Your task to perform on an android device: check data usage Image 0: 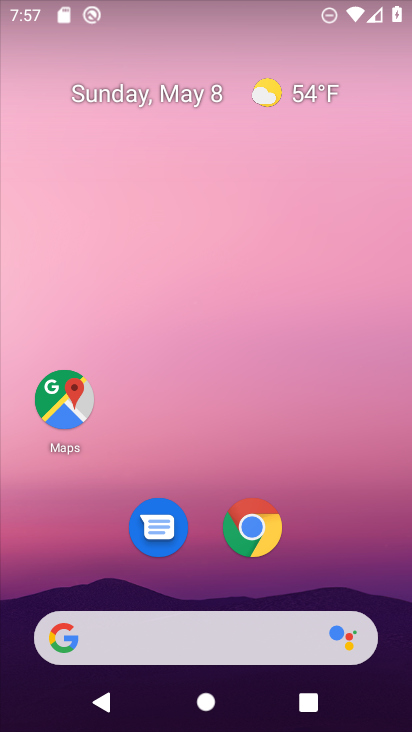
Step 0: drag from (345, 532) to (332, 144)
Your task to perform on an android device: check data usage Image 1: 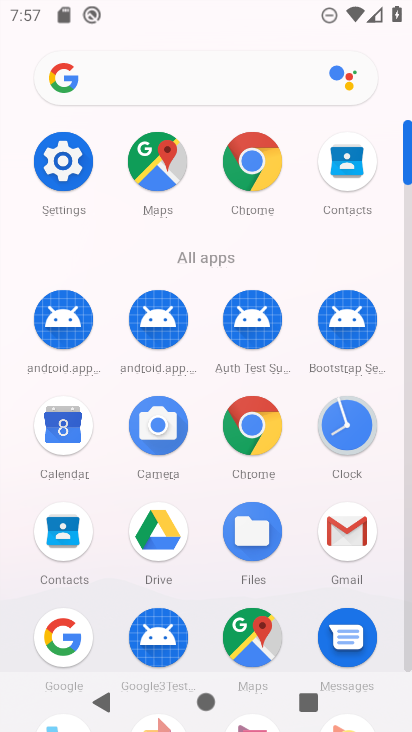
Step 1: click (54, 161)
Your task to perform on an android device: check data usage Image 2: 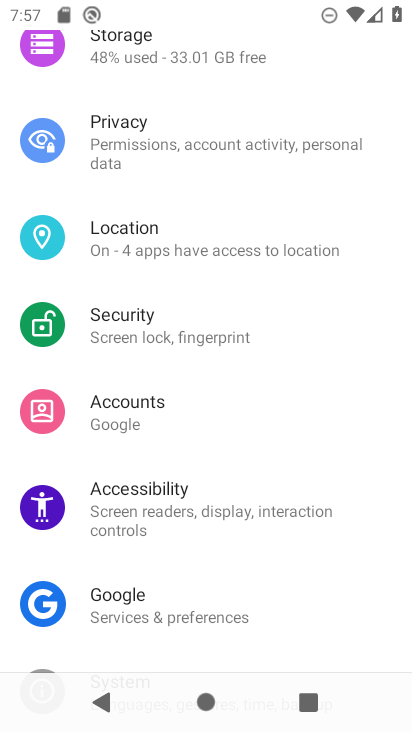
Step 2: drag from (232, 642) to (290, 244)
Your task to perform on an android device: check data usage Image 3: 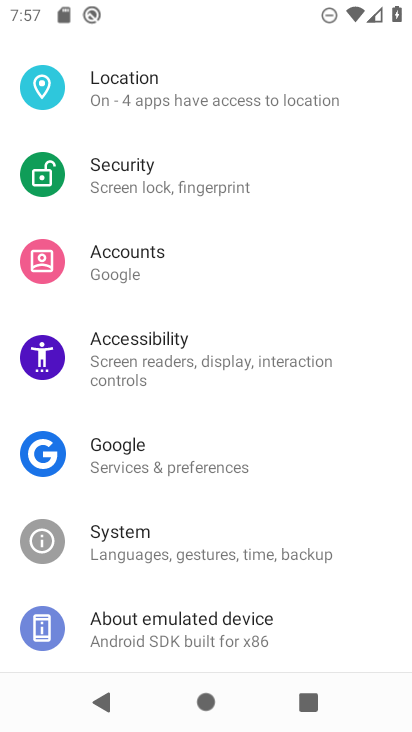
Step 3: drag from (222, 67) to (258, 511)
Your task to perform on an android device: check data usage Image 4: 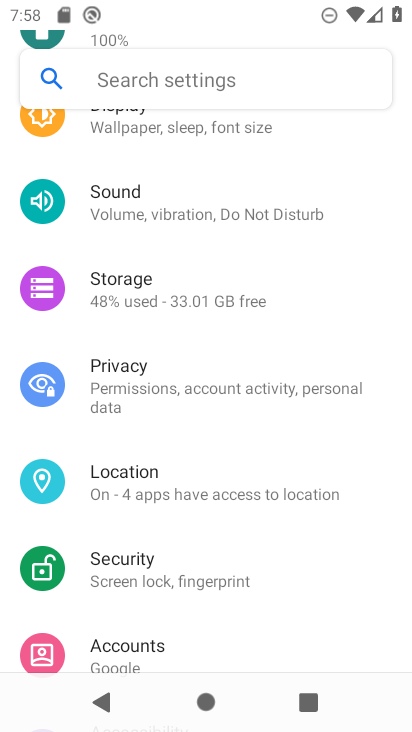
Step 4: drag from (263, 185) to (175, 569)
Your task to perform on an android device: check data usage Image 5: 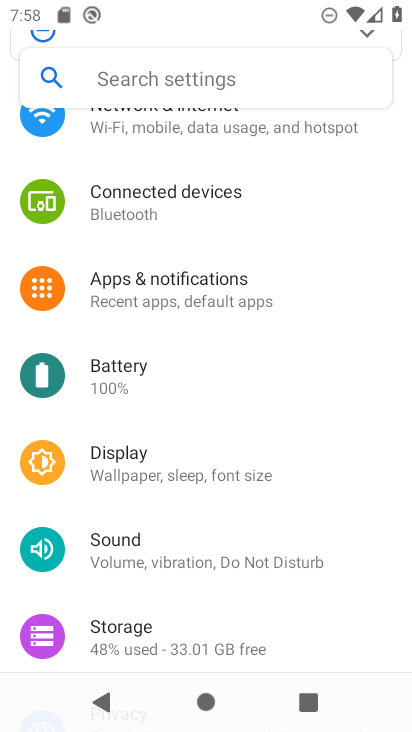
Step 5: drag from (206, 211) to (214, 476)
Your task to perform on an android device: check data usage Image 6: 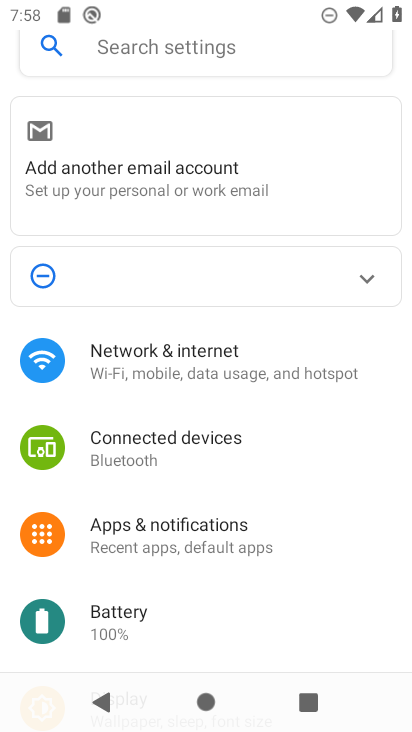
Step 6: click (206, 372)
Your task to perform on an android device: check data usage Image 7: 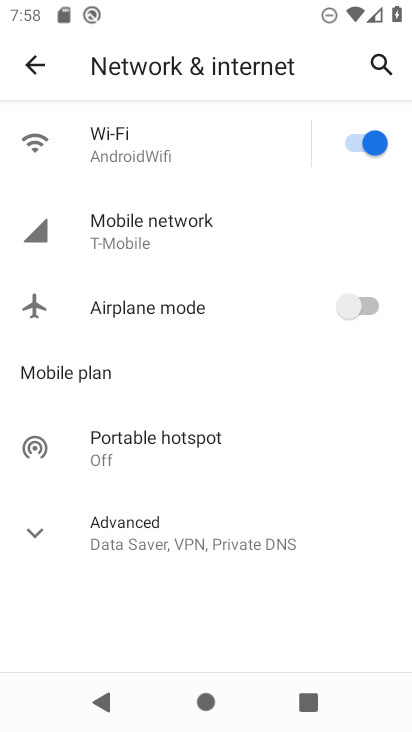
Step 7: click (212, 243)
Your task to perform on an android device: check data usage Image 8: 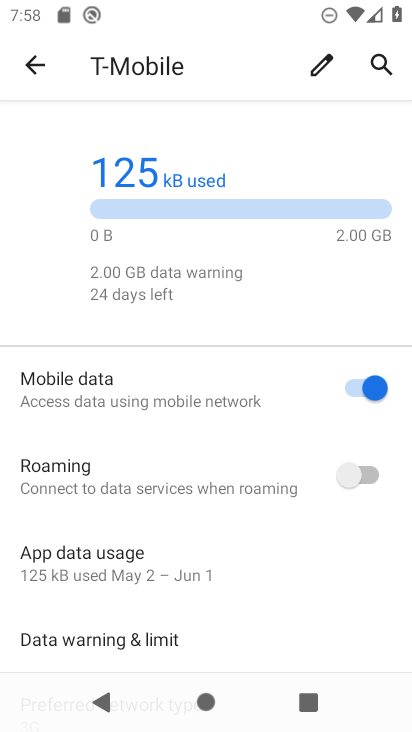
Step 8: task complete